Your task to perform on an android device: turn pop-ups off in chrome Image 0: 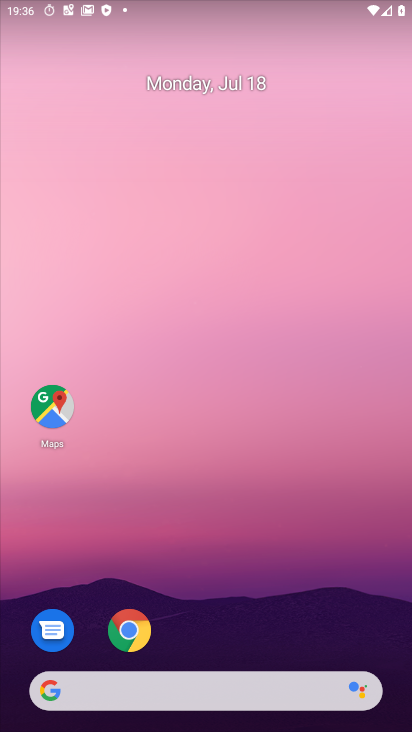
Step 0: drag from (240, 564) to (121, 83)
Your task to perform on an android device: turn pop-ups off in chrome Image 1: 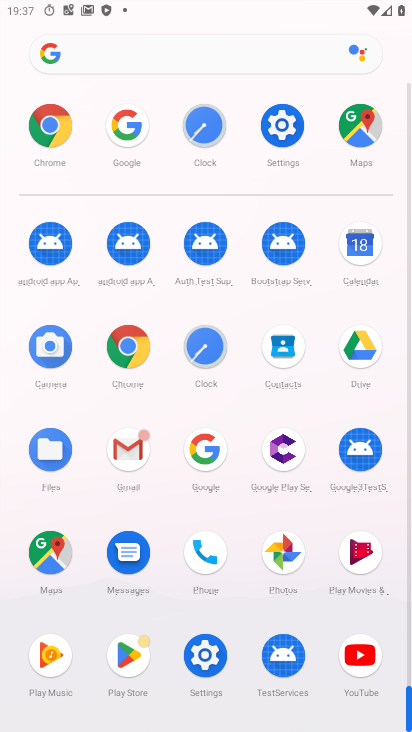
Step 1: click (44, 128)
Your task to perform on an android device: turn pop-ups off in chrome Image 2: 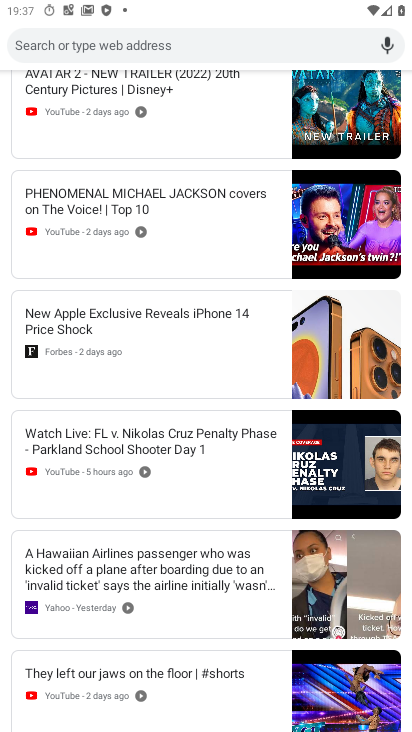
Step 2: drag from (151, 192) to (184, 504)
Your task to perform on an android device: turn pop-ups off in chrome Image 3: 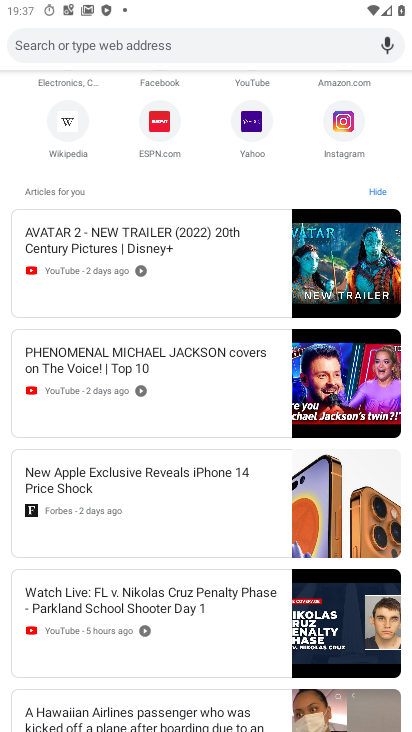
Step 3: drag from (184, 174) to (145, 561)
Your task to perform on an android device: turn pop-ups off in chrome Image 4: 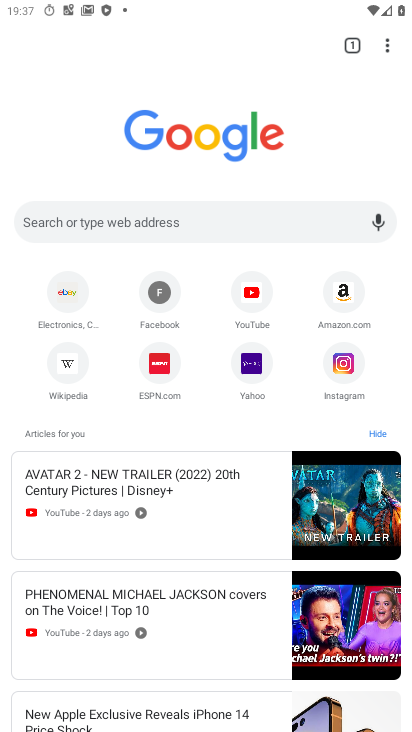
Step 4: drag from (381, 39) to (210, 379)
Your task to perform on an android device: turn pop-ups off in chrome Image 5: 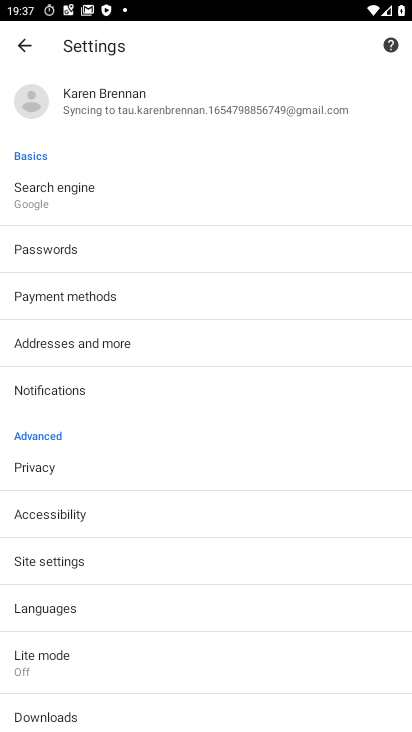
Step 5: click (81, 564)
Your task to perform on an android device: turn pop-ups off in chrome Image 6: 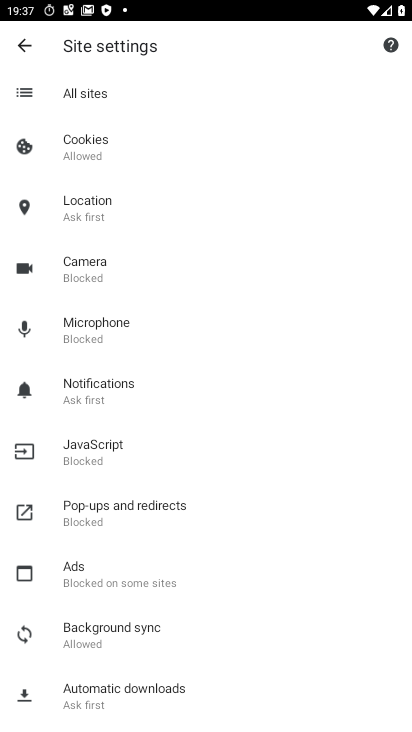
Step 6: click (75, 520)
Your task to perform on an android device: turn pop-ups off in chrome Image 7: 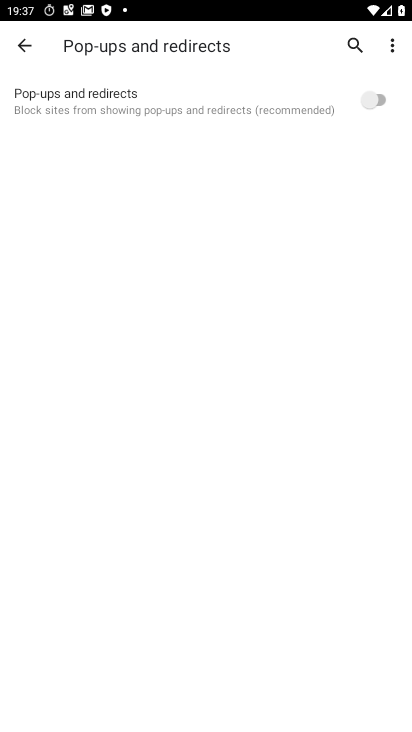
Step 7: task complete